Your task to perform on an android device: Clear the cart on newegg.com. Image 0: 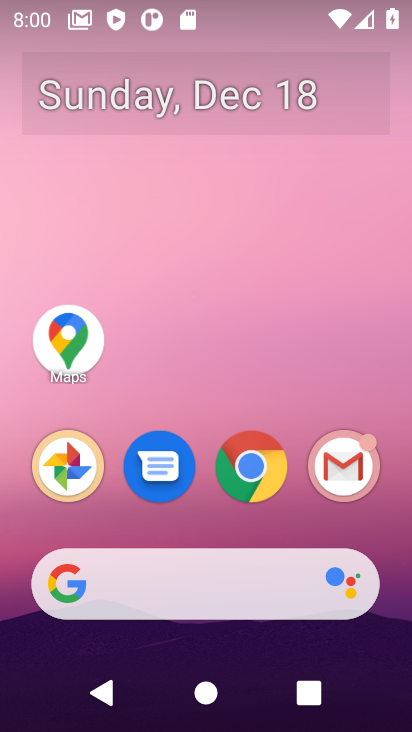
Step 0: click (254, 470)
Your task to perform on an android device: Clear the cart on newegg.com. Image 1: 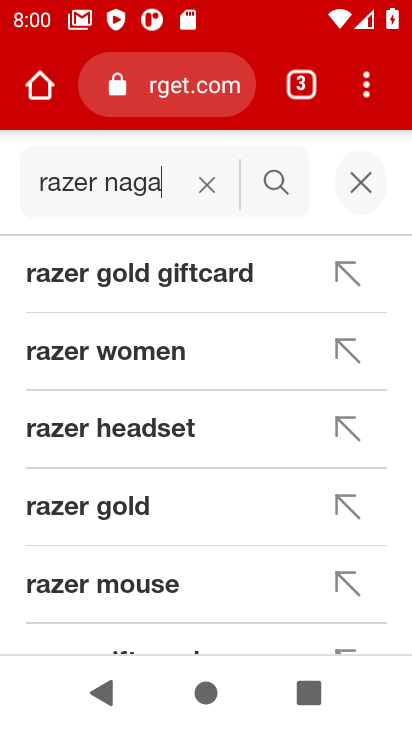
Step 1: click (176, 98)
Your task to perform on an android device: Clear the cart on newegg.com. Image 2: 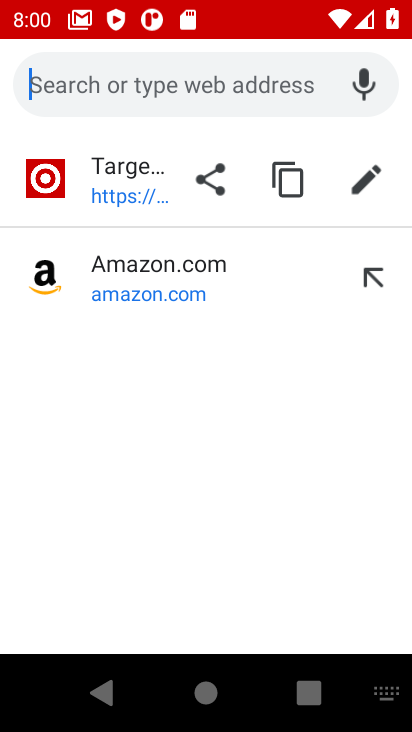
Step 2: type "newegg"
Your task to perform on an android device: Clear the cart on newegg.com. Image 3: 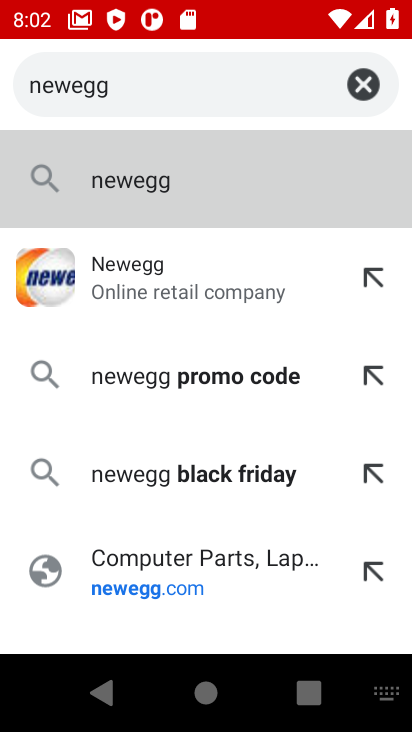
Step 3: click (215, 277)
Your task to perform on an android device: Clear the cart on newegg.com. Image 4: 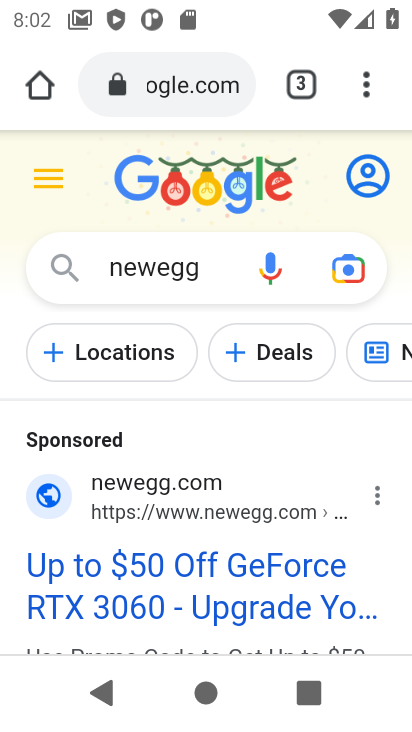
Step 4: click (249, 569)
Your task to perform on an android device: Clear the cart on newegg.com. Image 5: 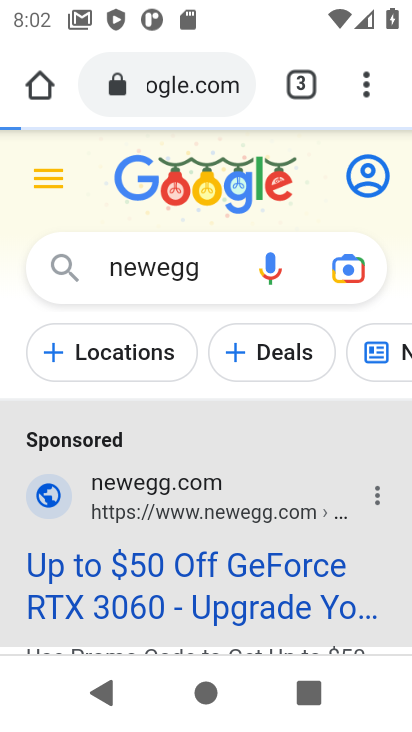
Step 5: click (249, 569)
Your task to perform on an android device: Clear the cart on newegg.com. Image 6: 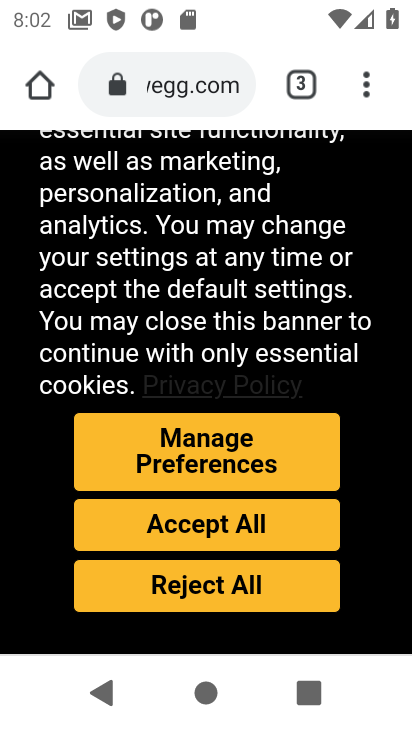
Step 6: click (205, 521)
Your task to perform on an android device: Clear the cart on newegg.com. Image 7: 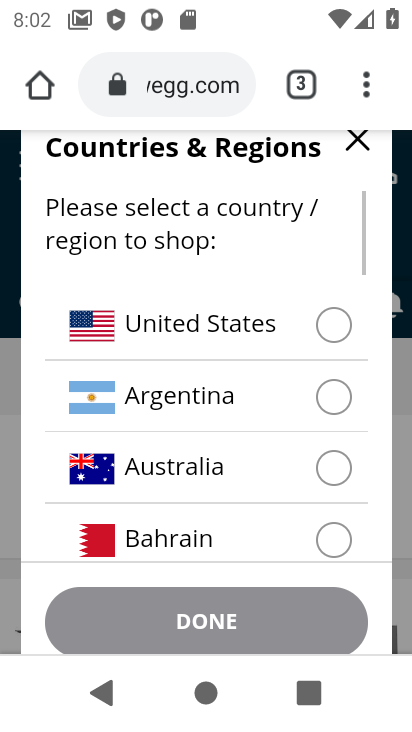
Step 7: click (232, 317)
Your task to perform on an android device: Clear the cart on newegg.com. Image 8: 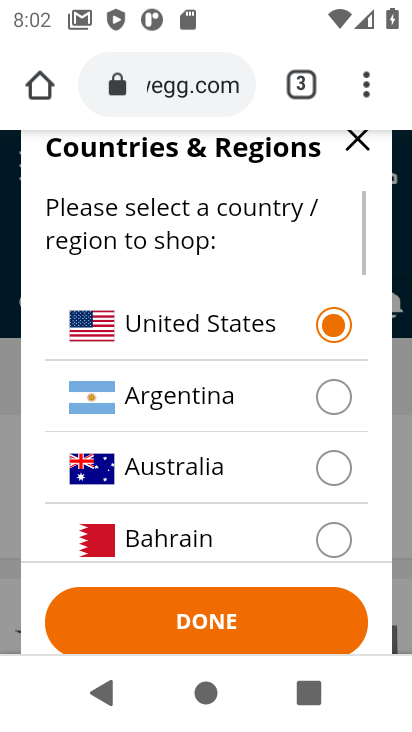
Step 8: click (265, 606)
Your task to perform on an android device: Clear the cart on newegg.com. Image 9: 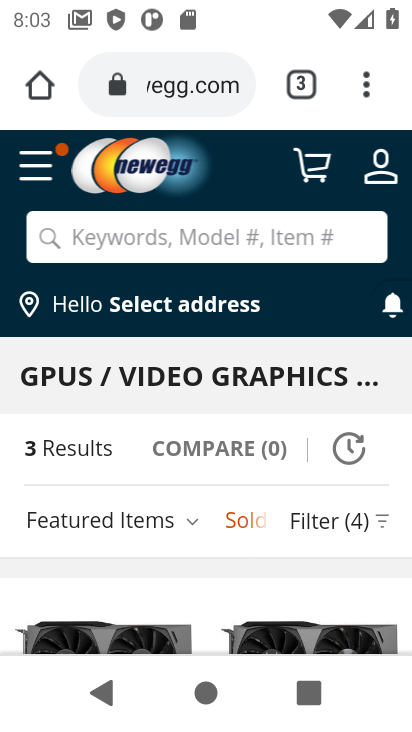
Step 9: task complete